Your task to perform on an android device: When is my next appointment? Image 0: 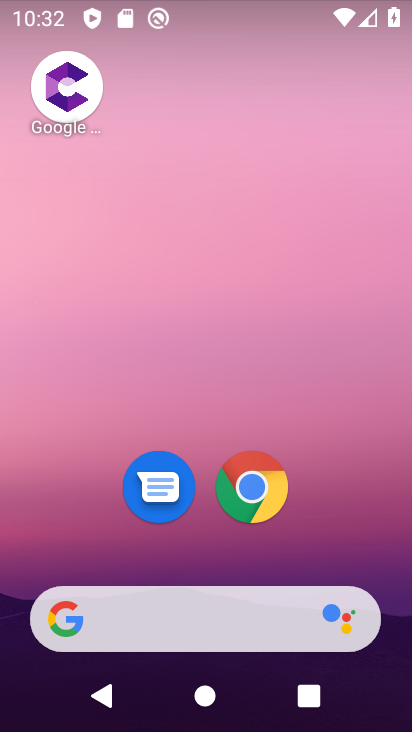
Step 0: drag from (339, 497) to (292, 167)
Your task to perform on an android device: When is my next appointment? Image 1: 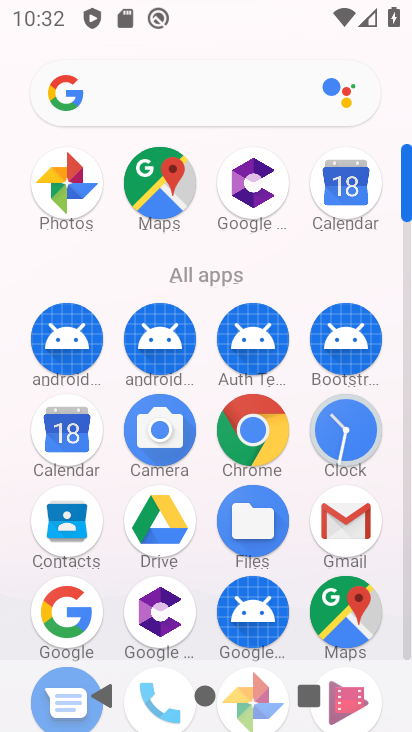
Step 1: click (55, 449)
Your task to perform on an android device: When is my next appointment? Image 2: 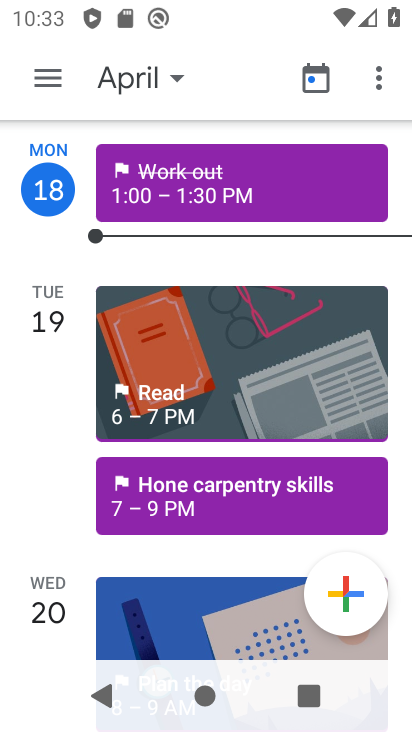
Step 2: click (222, 488)
Your task to perform on an android device: When is my next appointment? Image 3: 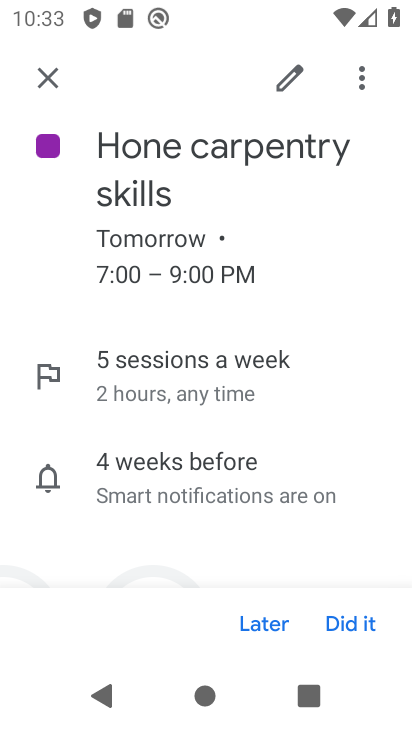
Step 3: task complete